Your task to perform on an android device: Go to privacy settings Image 0: 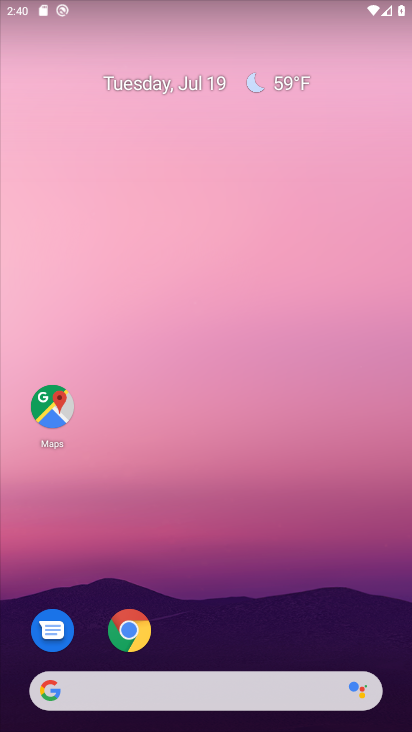
Step 0: drag from (262, 602) to (173, 43)
Your task to perform on an android device: Go to privacy settings Image 1: 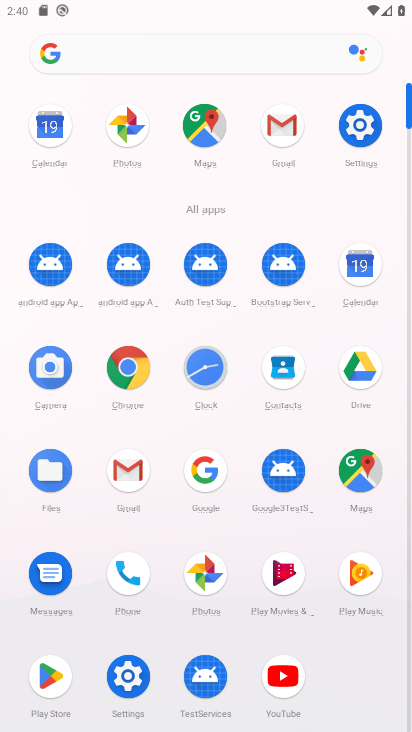
Step 1: click (359, 129)
Your task to perform on an android device: Go to privacy settings Image 2: 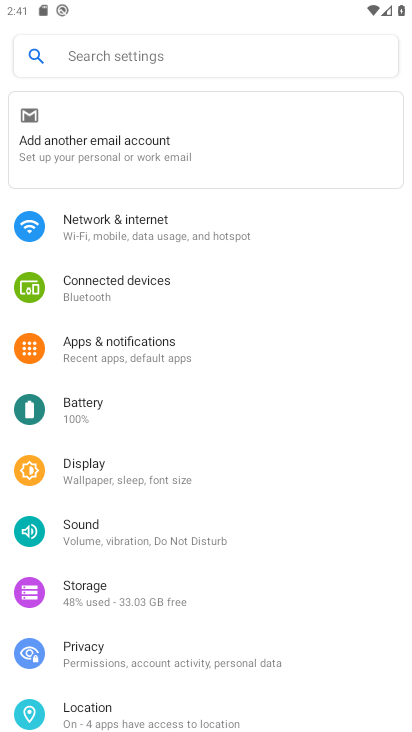
Step 2: click (96, 645)
Your task to perform on an android device: Go to privacy settings Image 3: 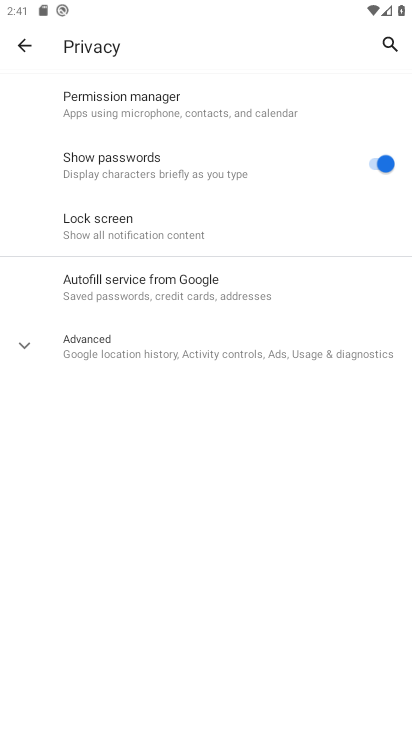
Step 3: task complete